Your task to perform on an android device: check android version Image 0: 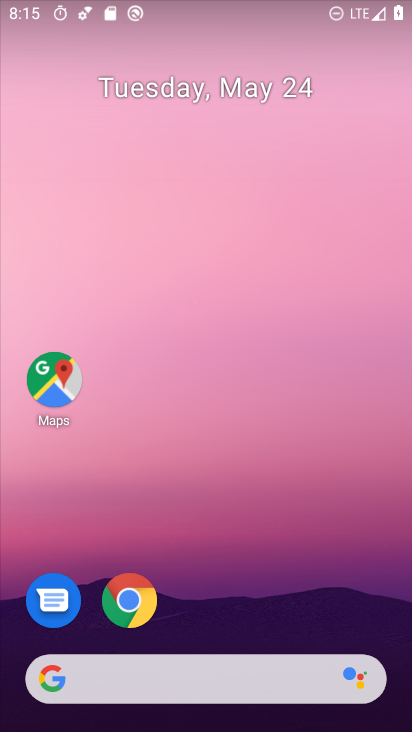
Step 0: drag from (248, 612) to (278, 109)
Your task to perform on an android device: check android version Image 1: 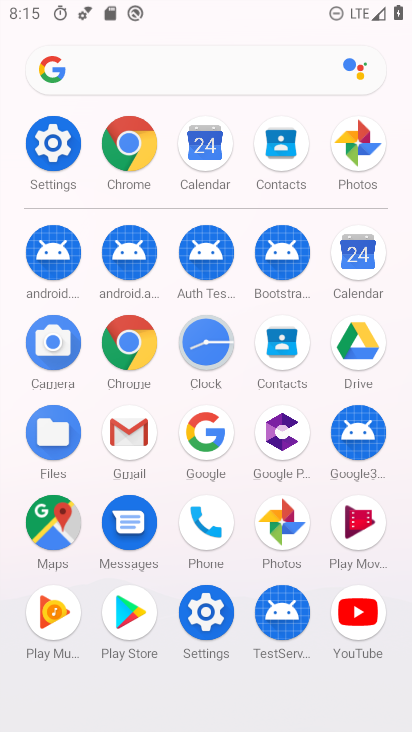
Step 1: click (57, 148)
Your task to perform on an android device: check android version Image 2: 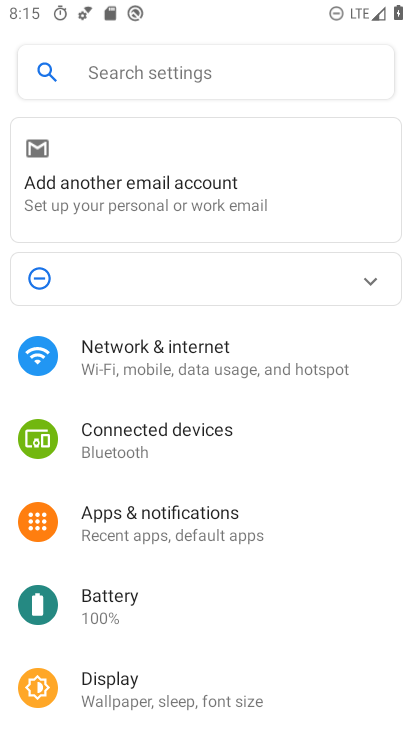
Step 2: drag from (220, 654) to (268, 107)
Your task to perform on an android device: check android version Image 3: 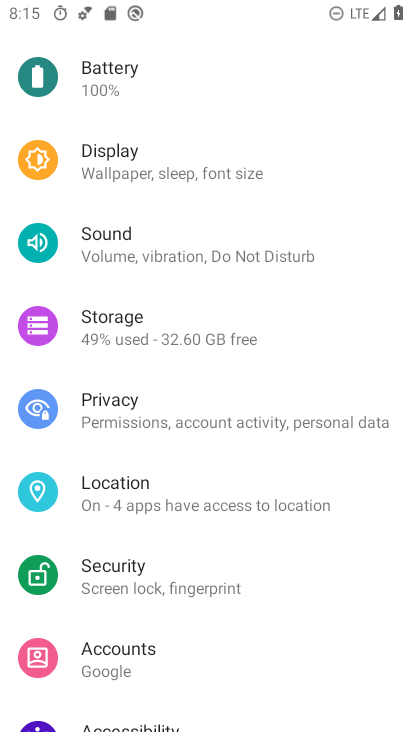
Step 3: drag from (224, 639) to (283, 128)
Your task to perform on an android device: check android version Image 4: 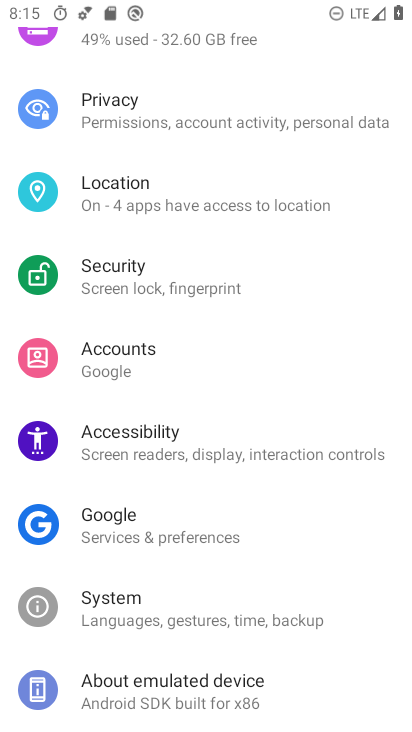
Step 4: drag from (153, 630) to (202, 173)
Your task to perform on an android device: check android version Image 5: 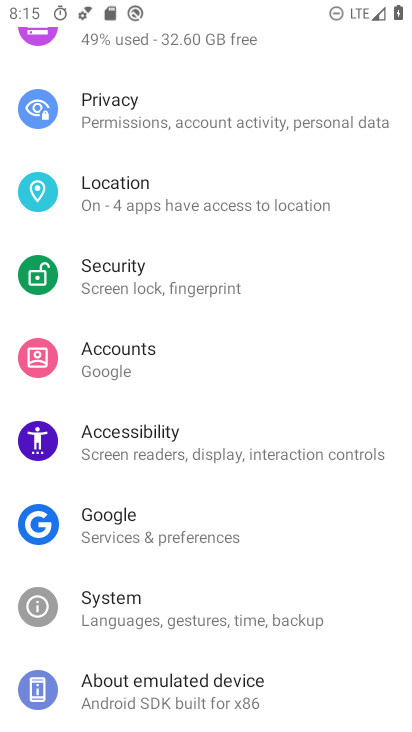
Step 5: drag from (175, 684) to (244, 68)
Your task to perform on an android device: check android version Image 6: 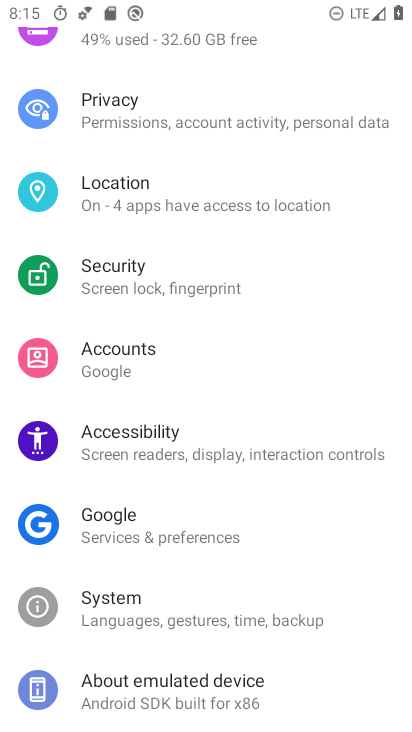
Step 6: click (163, 700)
Your task to perform on an android device: check android version Image 7: 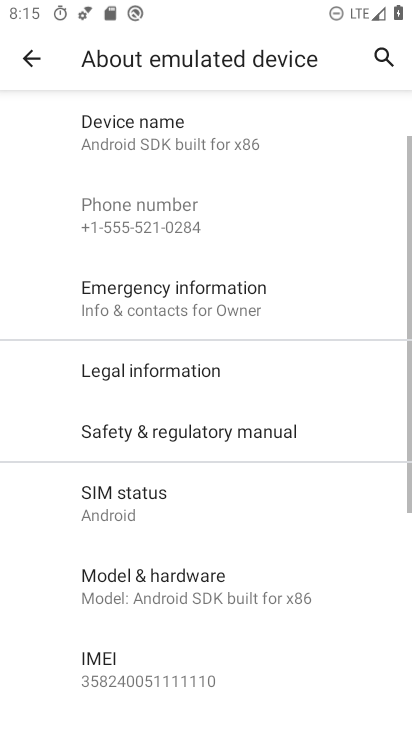
Step 7: drag from (203, 673) to (287, 136)
Your task to perform on an android device: check android version Image 8: 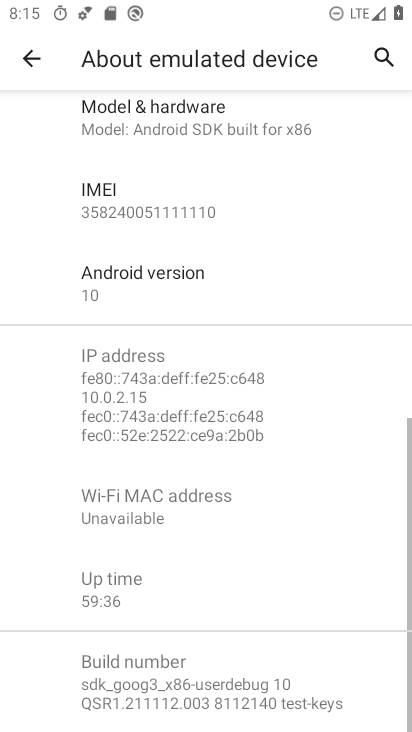
Step 8: click (107, 278)
Your task to perform on an android device: check android version Image 9: 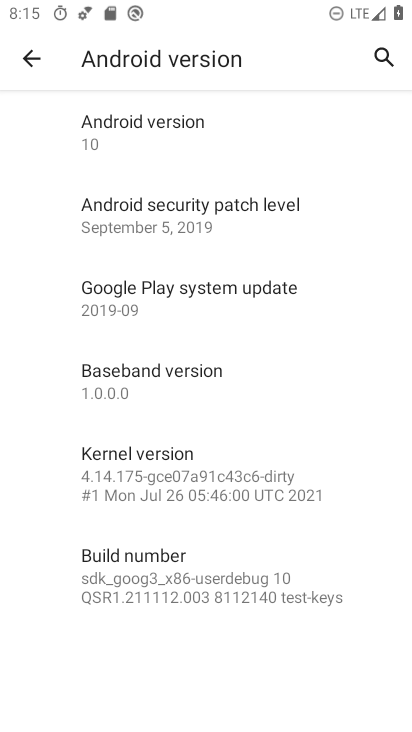
Step 9: task complete